Your task to perform on an android device: delete the emails in spam in the gmail app Image 0: 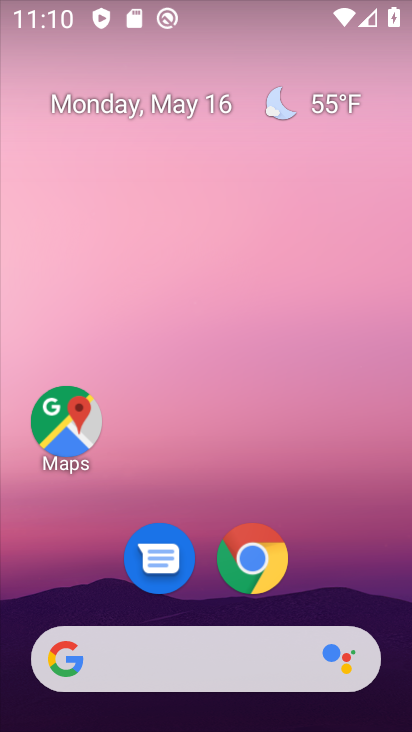
Step 0: drag from (108, 503) to (178, 94)
Your task to perform on an android device: delete the emails in spam in the gmail app Image 1: 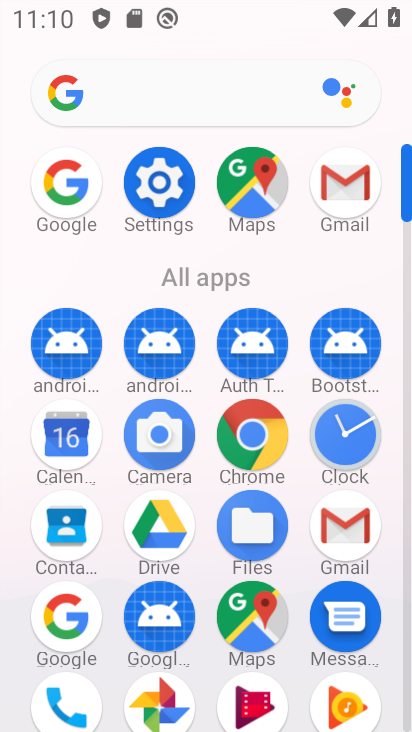
Step 1: click (350, 182)
Your task to perform on an android device: delete the emails in spam in the gmail app Image 2: 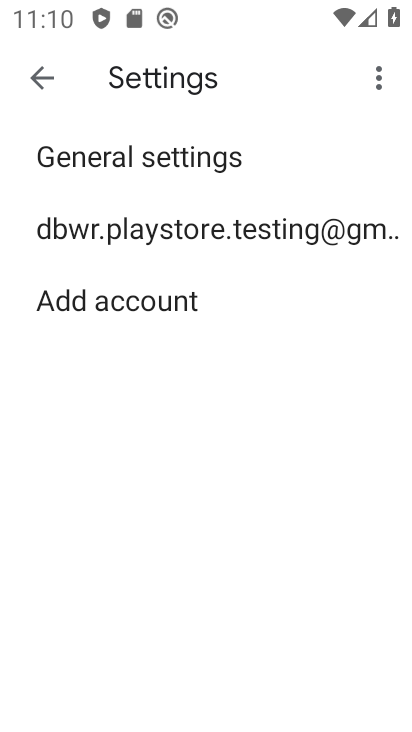
Step 2: click (160, 231)
Your task to perform on an android device: delete the emails in spam in the gmail app Image 3: 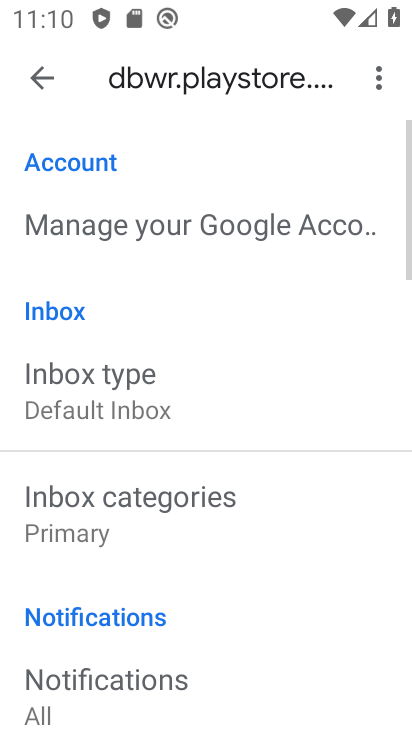
Step 3: press back button
Your task to perform on an android device: delete the emails in spam in the gmail app Image 4: 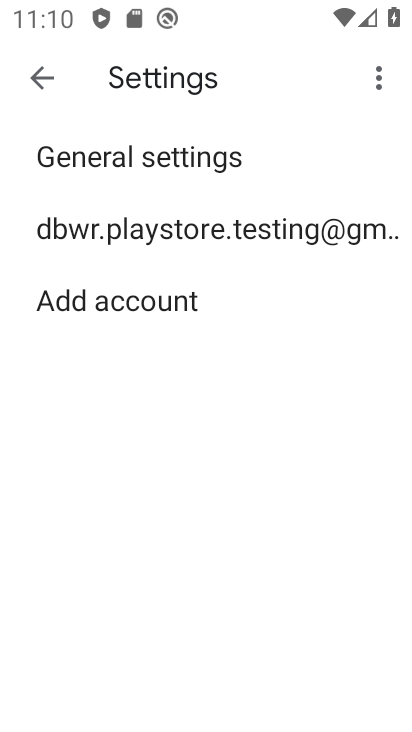
Step 4: press back button
Your task to perform on an android device: delete the emails in spam in the gmail app Image 5: 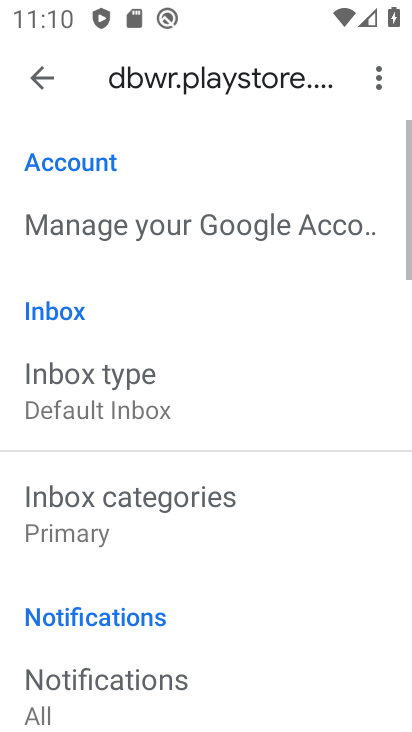
Step 5: press back button
Your task to perform on an android device: delete the emails in spam in the gmail app Image 6: 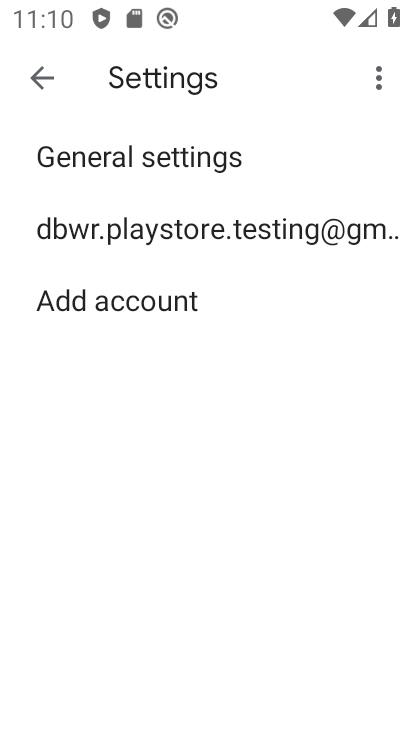
Step 6: press back button
Your task to perform on an android device: delete the emails in spam in the gmail app Image 7: 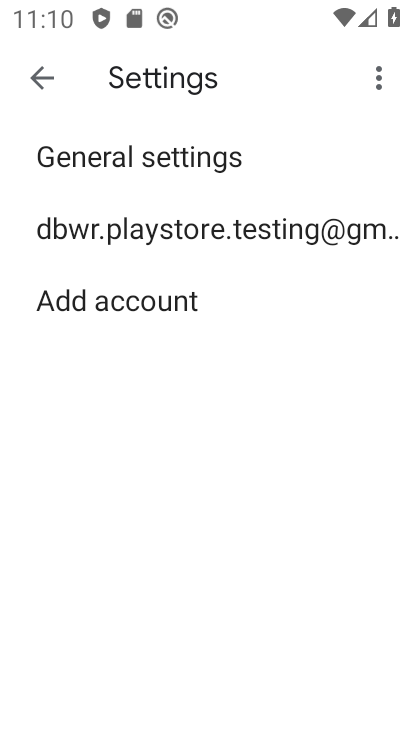
Step 7: press back button
Your task to perform on an android device: delete the emails in spam in the gmail app Image 8: 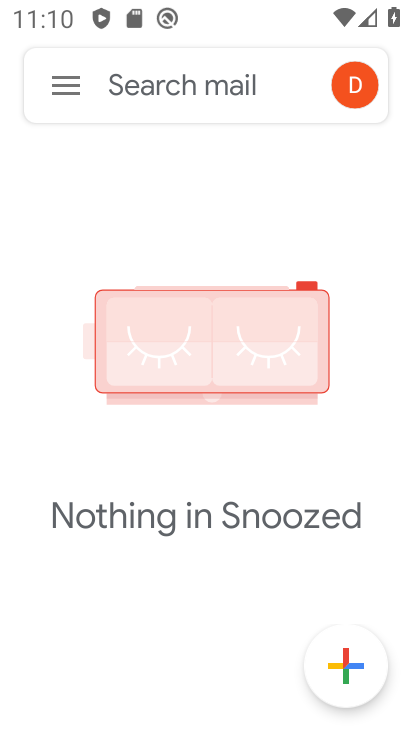
Step 8: click (62, 90)
Your task to perform on an android device: delete the emails in spam in the gmail app Image 9: 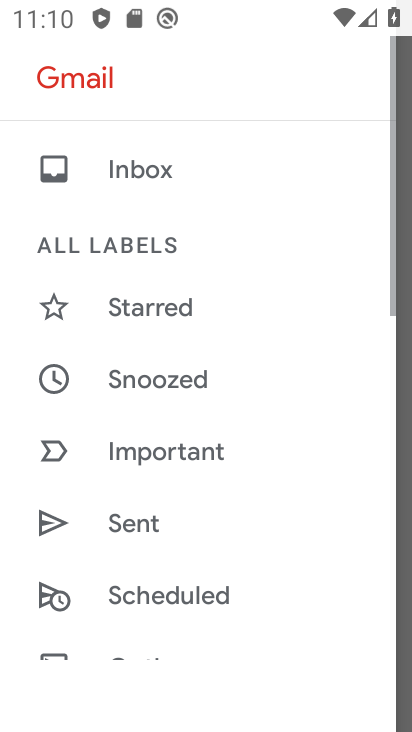
Step 9: drag from (193, 499) to (236, 199)
Your task to perform on an android device: delete the emails in spam in the gmail app Image 10: 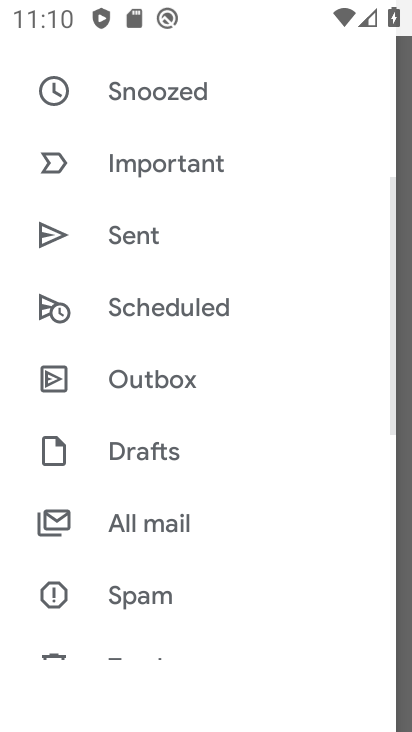
Step 10: click (167, 528)
Your task to perform on an android device: delete the emails in spam in the gmail app Image 11: 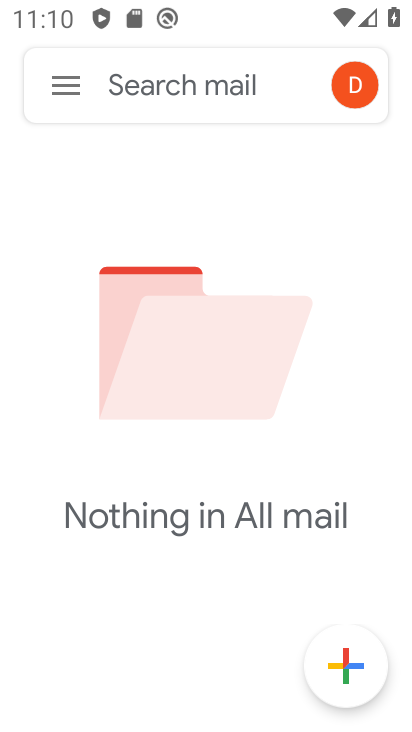
Step 11: task complete